Your task to perform on an android device: Go to ESPN.com Image 0: 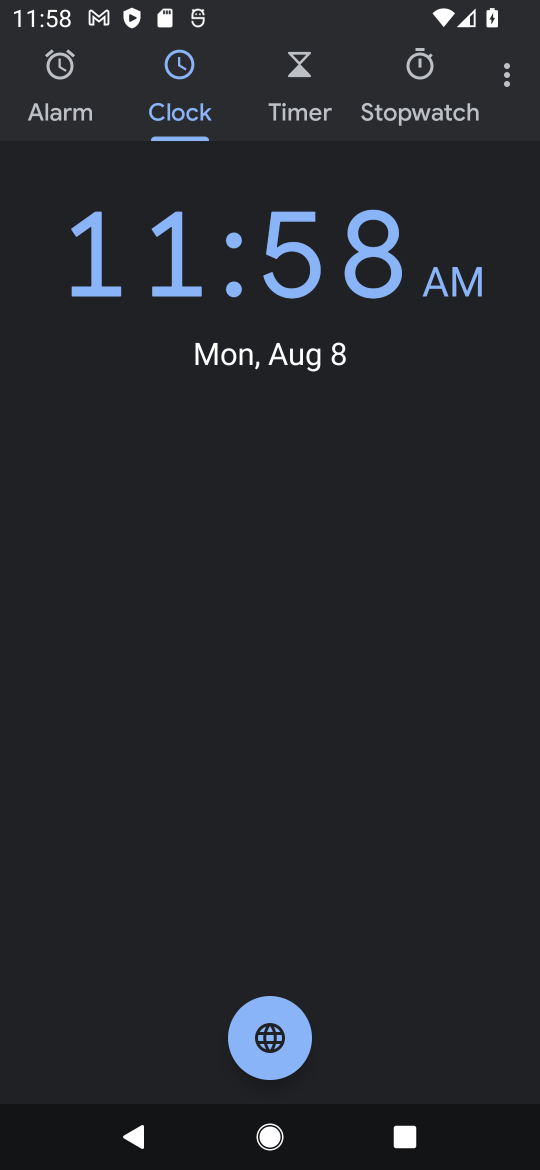
Step 0: press back button
Your task to perform on an android device: Go to ESPN.com Image 1: 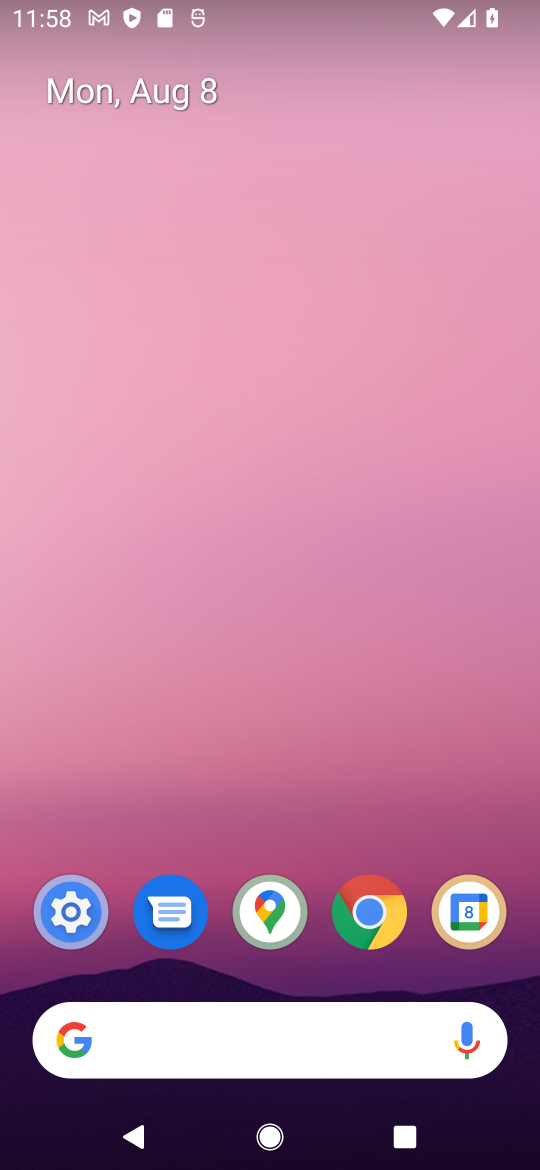
Step 1: click (367, 914)
Your task to perform on an android device: Go to ESPN.com Image 2: 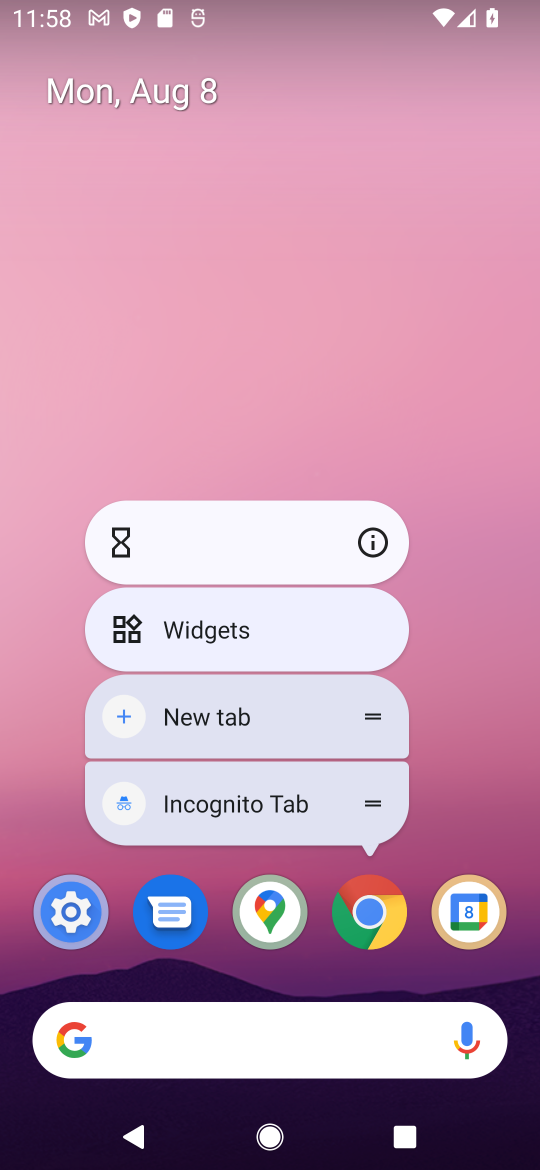
Step 2: click (367, 914)
Your task to perform on an android device: Go to ESPN.com Image 3: 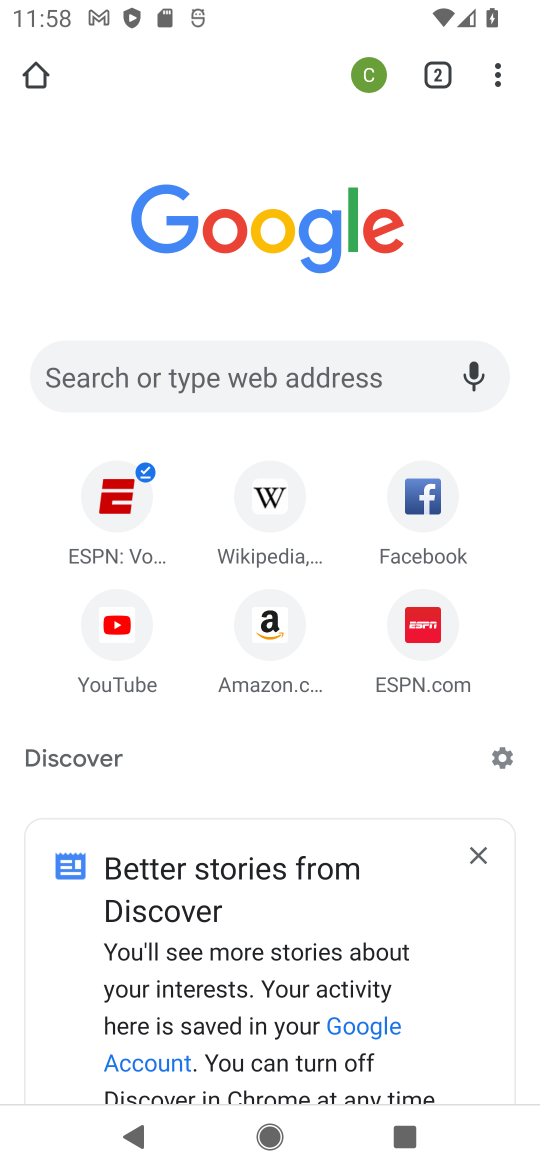
Step 3: click (421, 655)
Your task to perform on an android device: Go to ESPN.com Image 4: 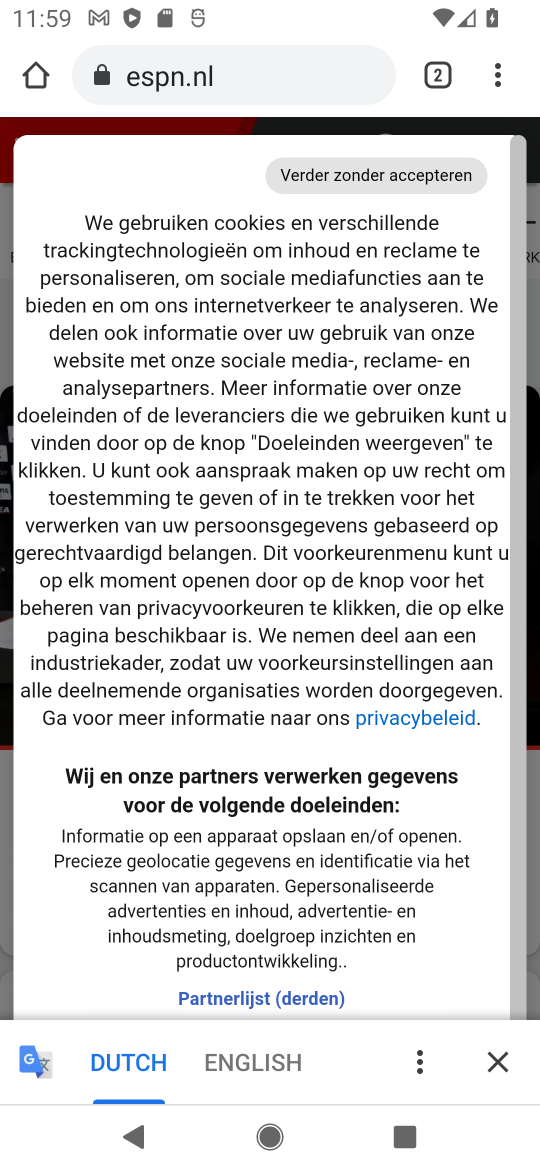
Step 4: task complete